Your task to perform on an android device: turn off sleep mode Image 0: 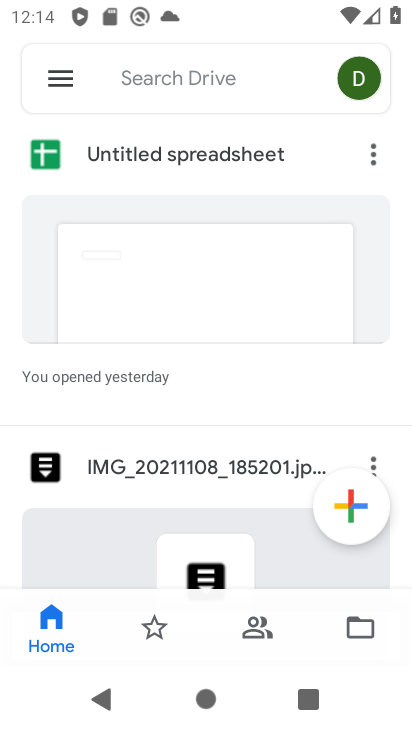
Step 0: press home button
Your task to perform on an android device: turn off sleep mode Image 1: 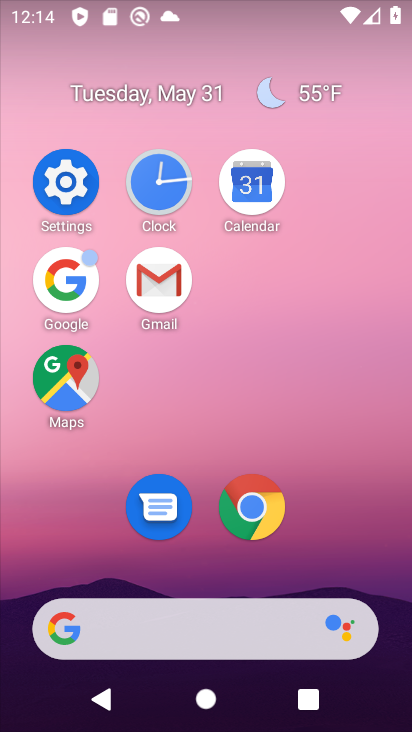
Step 1: click (71, 199)
Your task to perform on an android device: turn off sleep mode Image 2: 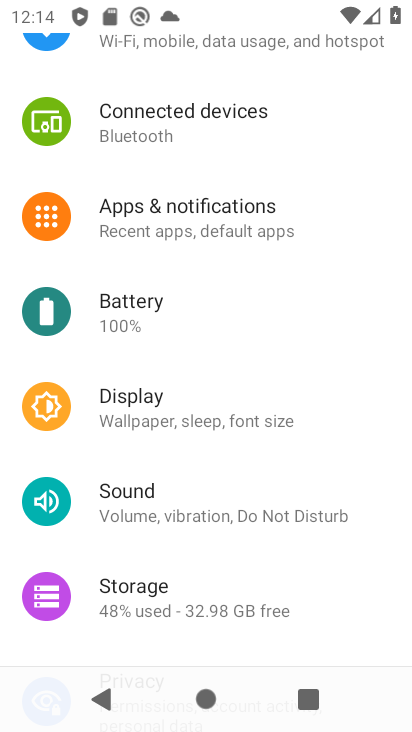
Step 2: click (217, 428)
Your task to perform on an android device: turn off sleep mode Image 3: 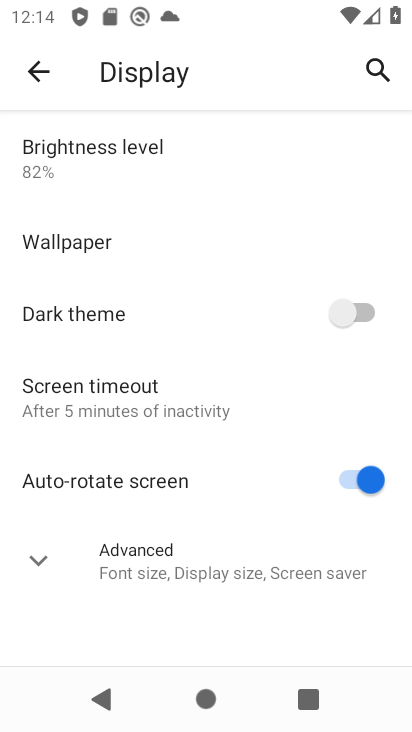
Step 3: click (210, 410)
Your task to perform on an android device: turn off sleep mode Image 4: 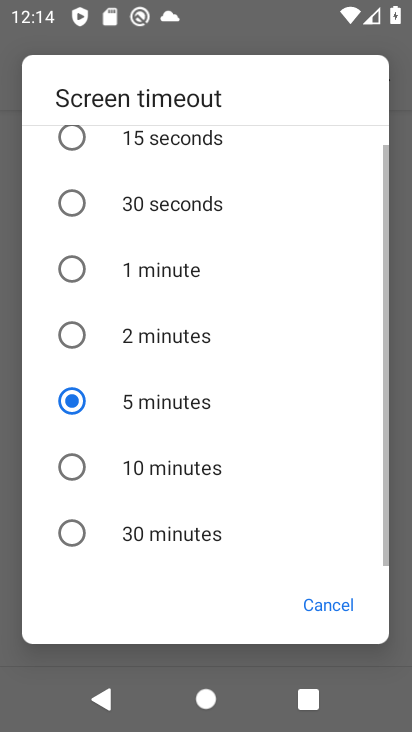
Step 4: task complete